Your task to perform on an android device: check android version Image 0: 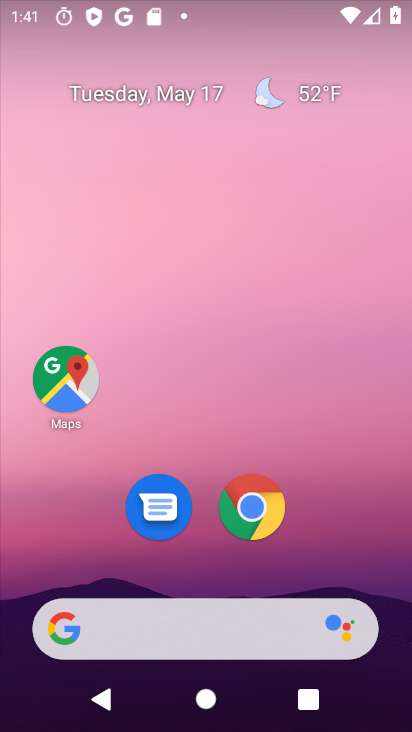
Step 0: drag from (216, 548) to (224, 146)
Your task to perform on an android device: check android version Image 1: 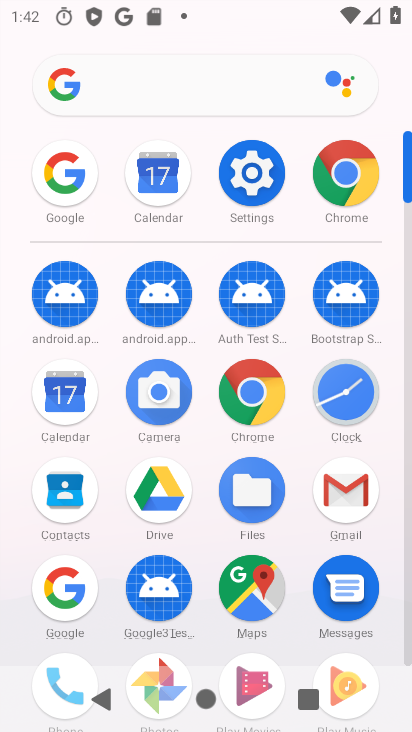
Step 1: click (254, 172)
Your task to perform on an android device: check android version Image 2: 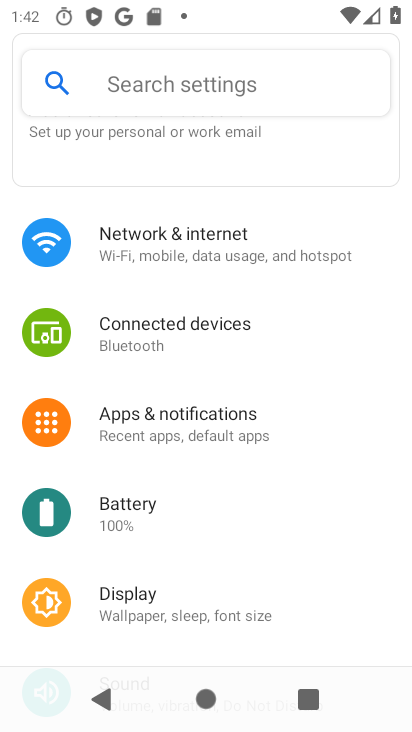
Step 2: drag from (242, 530) to (234, 37)
Your task to perform on an android device: check android version Image 3: 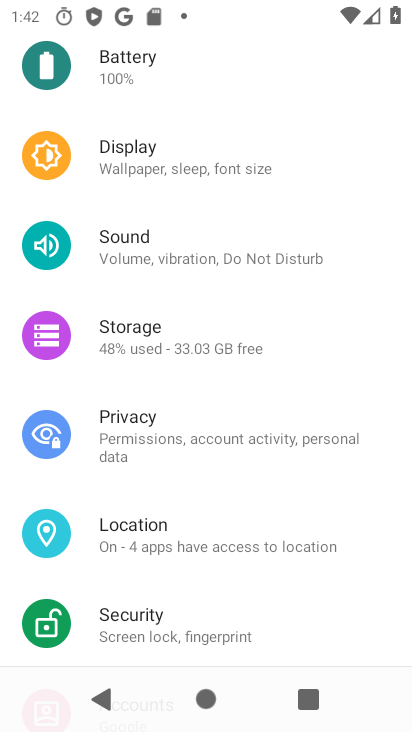
Step 3: drag from (215, 569) to (228, 145)
Your task to perform on an android device: check android version Image 4: 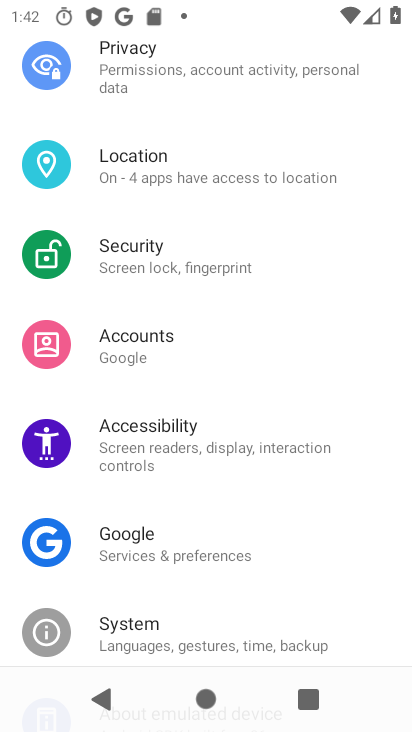
Step 4: drag from (228, 539) to (228, 106)
Your task to perform on an android device: check android version Image 5: 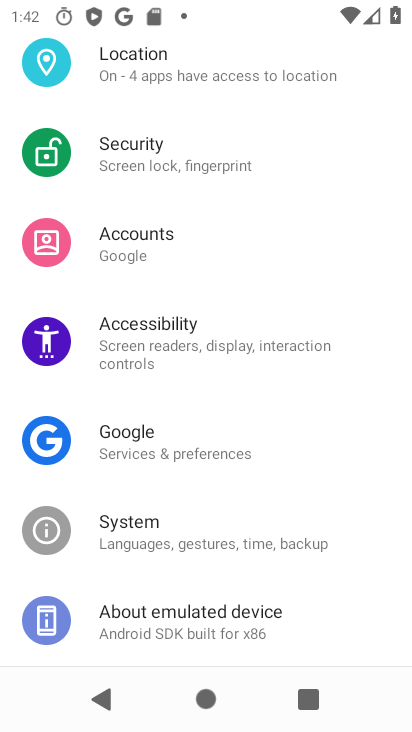
Step 5: click (169, 622)
Your task to perform on an android device: check android version Image 6: 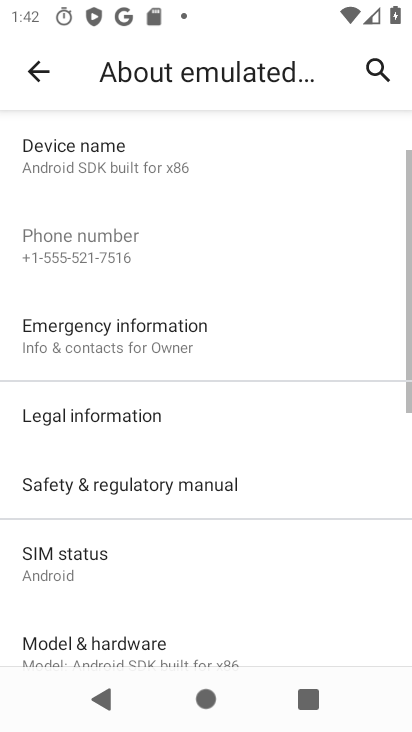
Step 6: drag from (173, 501) to (182, 79)
Your task to perform on an android device: check android version Image 7: 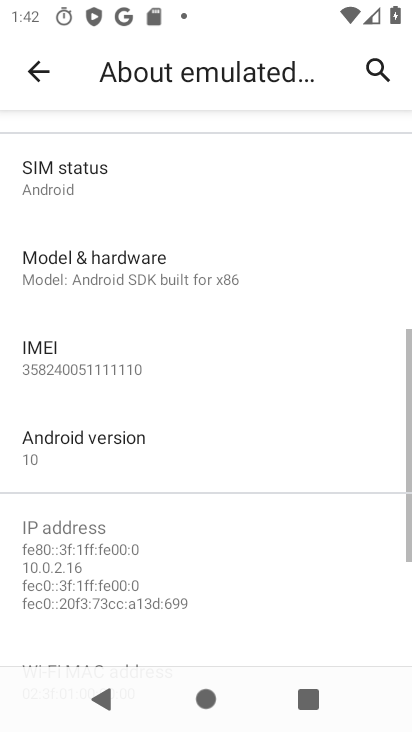
Step 7: click (98, 449)
Your task to perform on an android device: check android version Image 8: 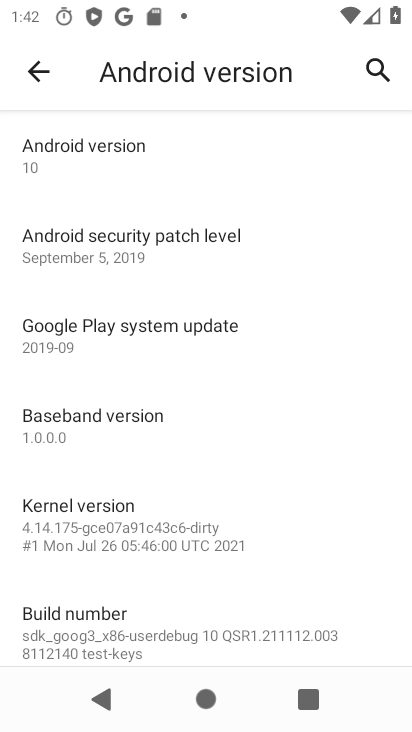
Step 8: task complete